Your task to perform on an android device: change notification settings in the gmail app Image 0: 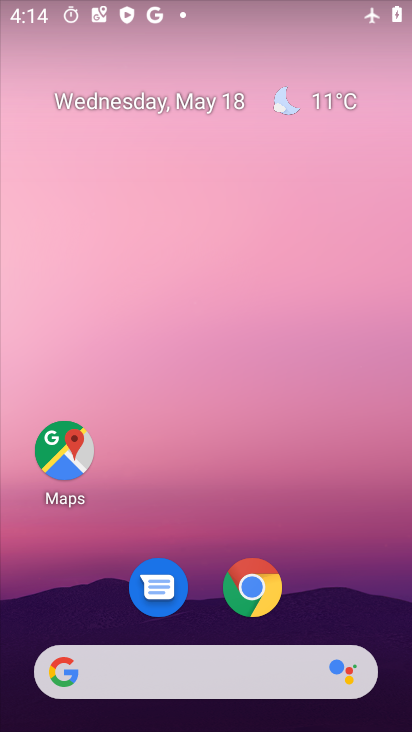
Step 0: drag from (247, 661) to (367, 190)
Your task to perform on an android device: change notification settings in the gmail app Image 1: 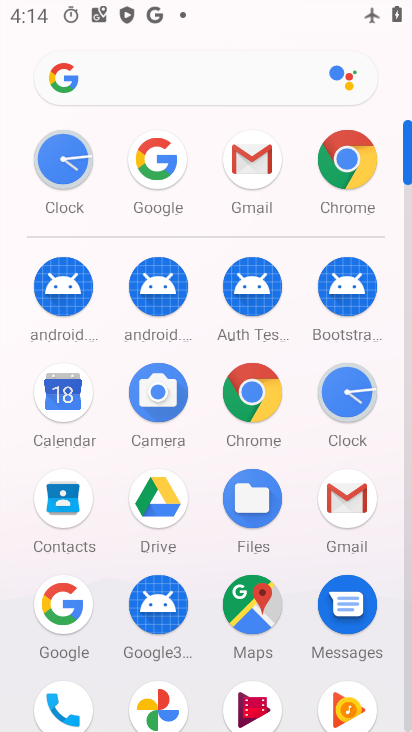
Step 1: click (355, 522)
Your task to perform on an android device: change notification settings in the gmail app Image 2: 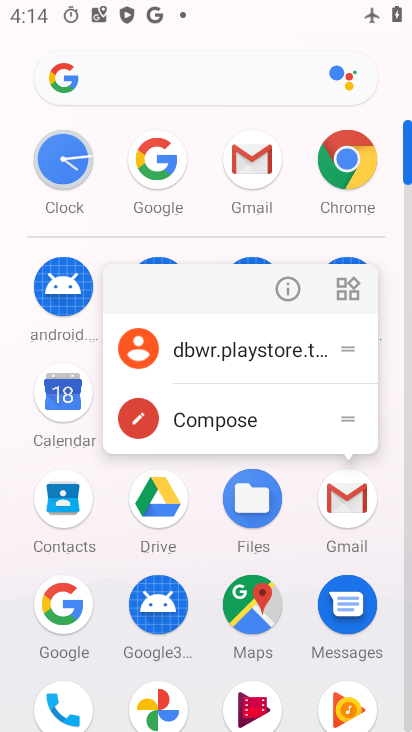
Step 2: click (348, 503)
Your task to perform on an android device: change notification settings in the gmail app Image 3: 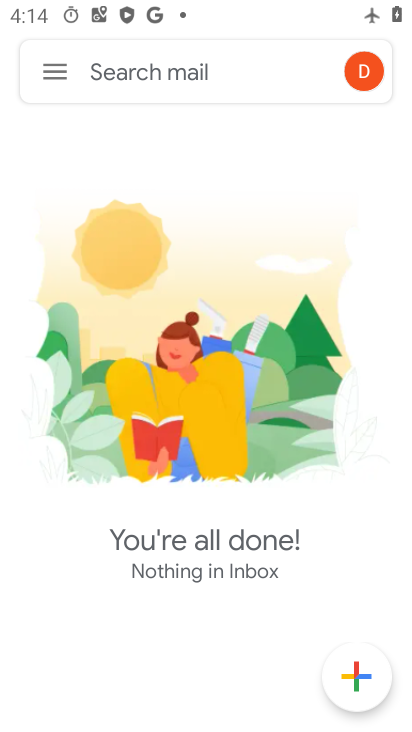
Step 3: click (51, 75)
Your task to perform on an android device: change notification settings in the gmail app Image 4: 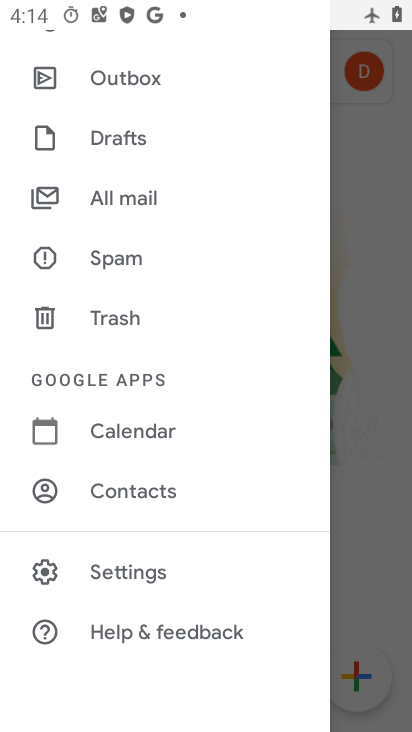
Step 4: click (109, 560)
Your task to perform on an android device: change notification settings in the gmail app Image 5: 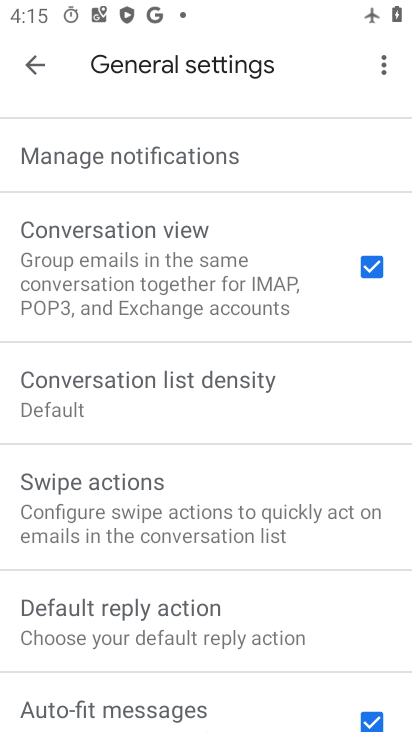
Step 5: click (196, 162)
Your task to perform on an android device: change notification settings in the gmail app Image 6: 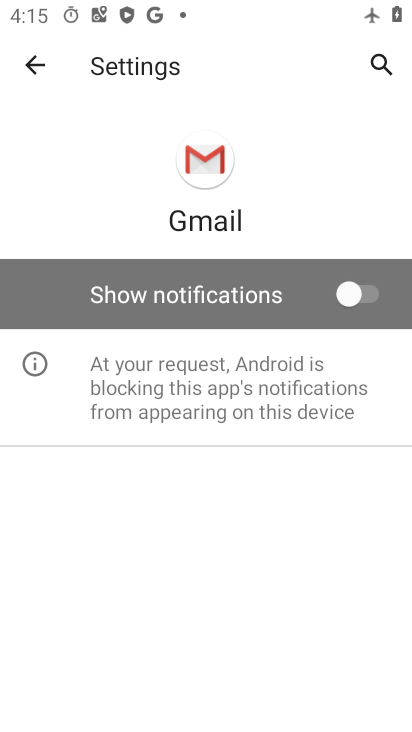
Step 6: click (303, 288)
Your task to perform on an android device: change notification settings in the gmail app Image 7: 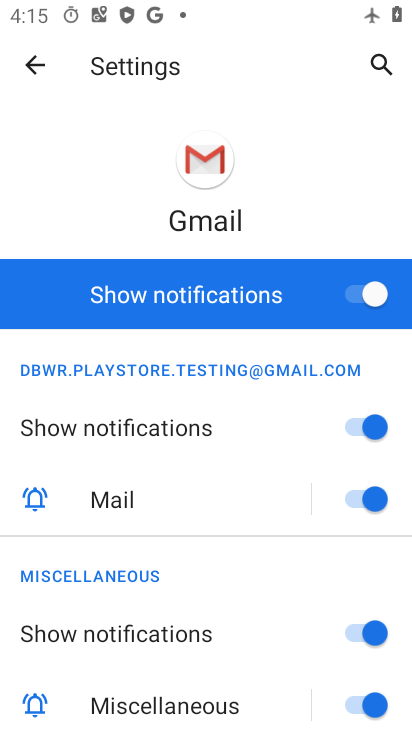
Step 7: task complete